Your task to perform on an android device: Go to accessibility settings Image 0: 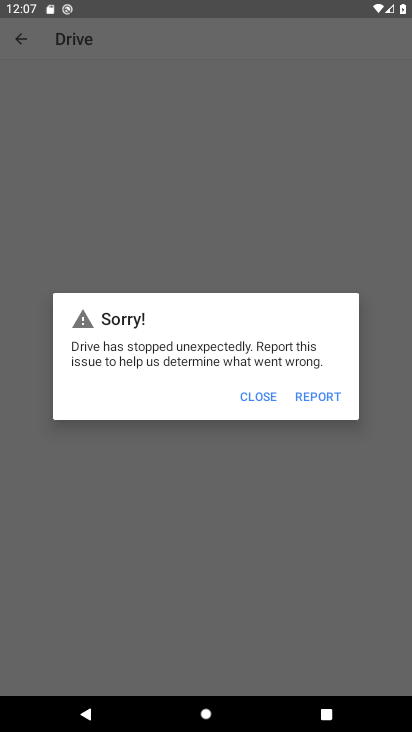
Step 0: press home button
Your task to perform on an android device: Go to accessibility settings Image 1: 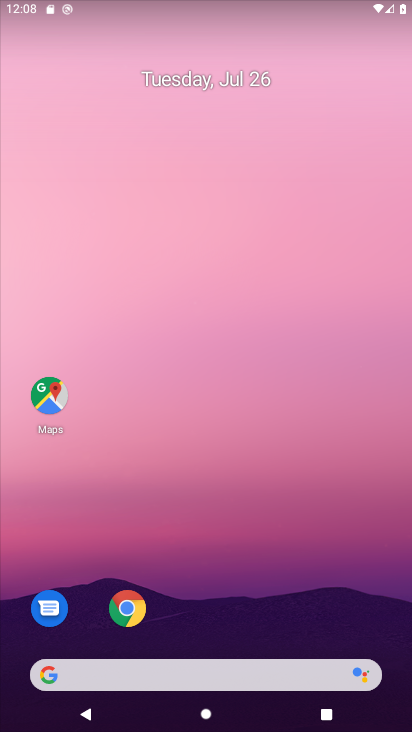
Step 1: drag from (210, 339) to (201, 0)
Your task to perform on an android device: Go to accessibility settings Image 2: 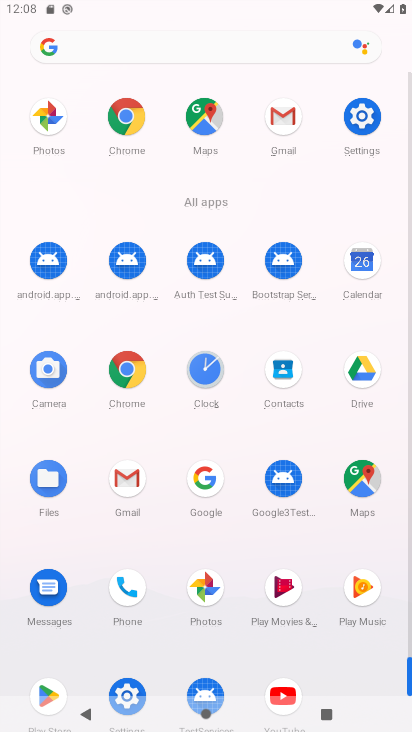
Step 2: click (366, 133)
Your task to perform on an android device: Go to accessibility settings Image 3: 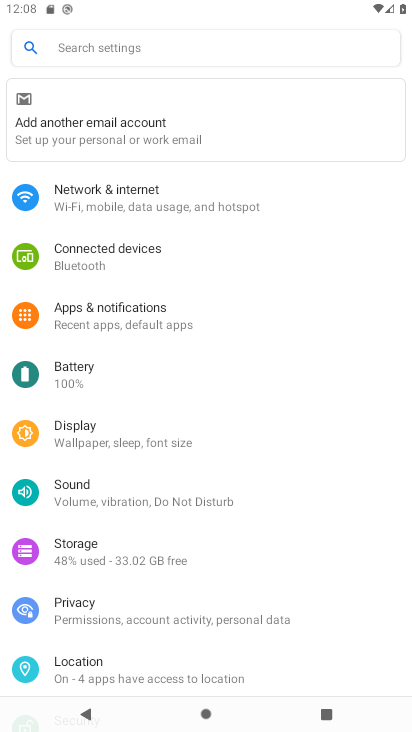
Step 3: drag from (100, 575) to (142, 395)
Your task to perform on an android device: Go to accessibility settings Image 4: 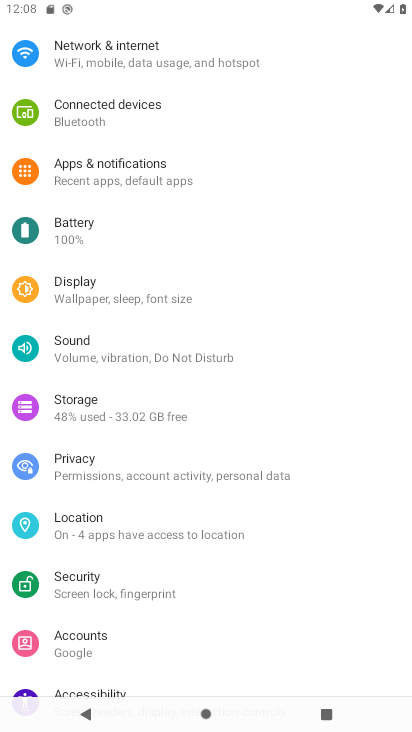
Step 4: drag from (155, 559) to (168, 202)
Your task to perform on an android device: Go to accessibility settings Image 5: 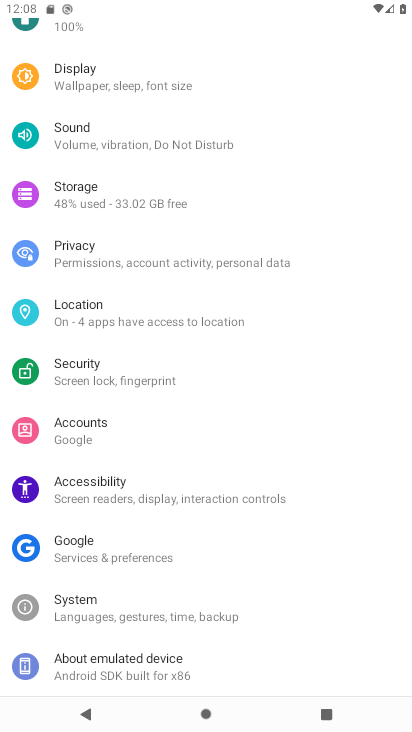
Step 5: click (105, 484)
Your task to perform on an android device: Go to accessibility settings Image 6: 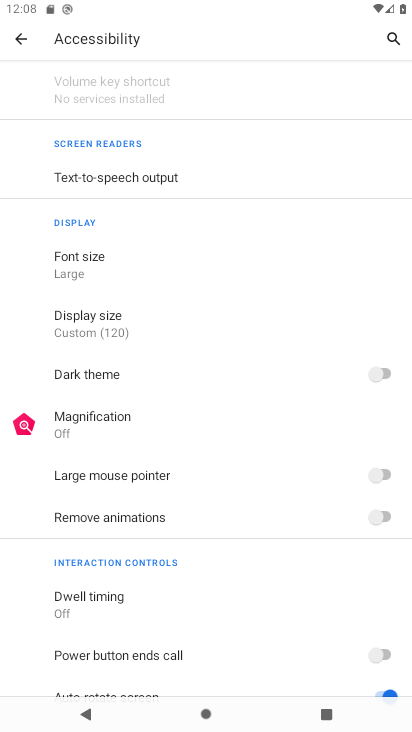
Step 6: task complete